Your task to perform on an android device: change notification settings in the gmail app Image 0: 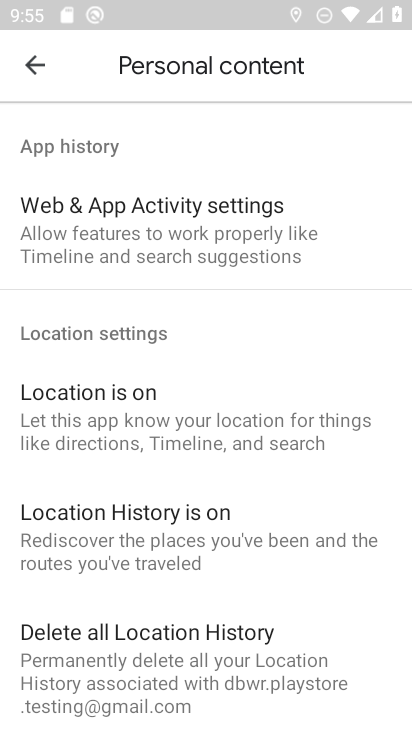
Step 0: drag from (272, 262) to (250, 572)
Your task to perform on an android device: change notification settings in the gmail app Image 1: 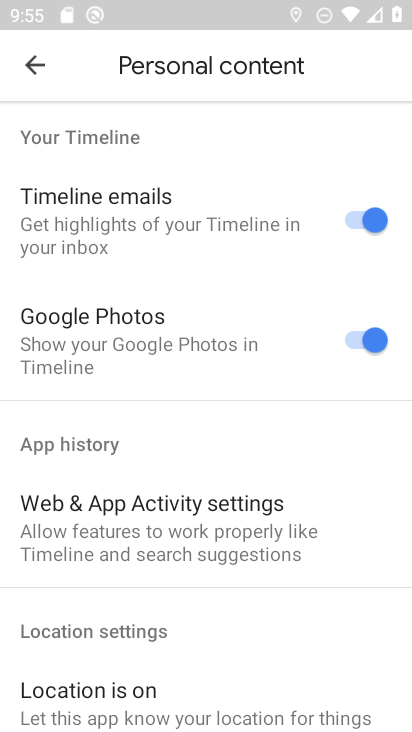
Step 1: press back button
Your task to perform on an android device: change notification settings in the gmail app Image 2: 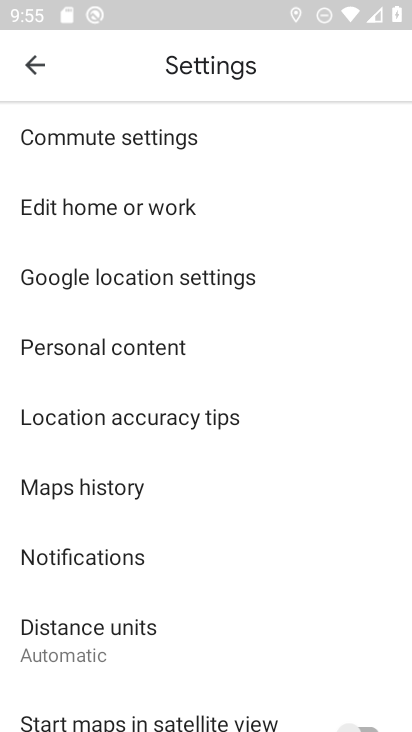
Step 2: press back button
Your task to perform on an android device: change notification settings in the gmail app Image 3: 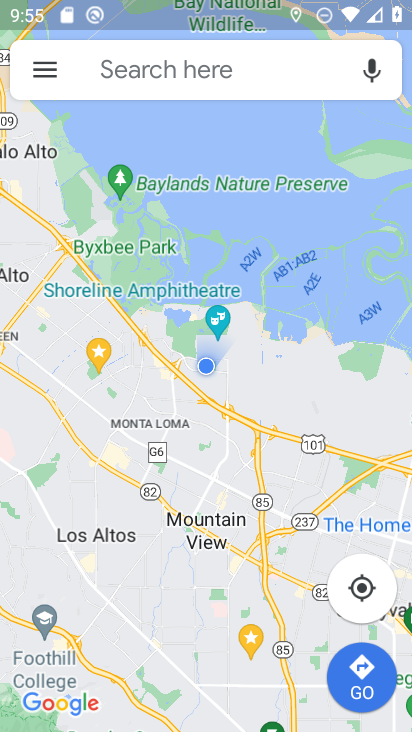
Step 3: press home button
Your task to perform on an android device: change notification settings in the gmail app Image 4: 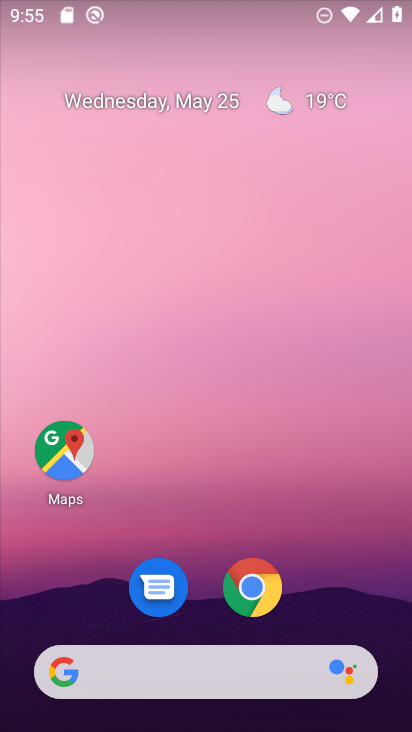
Step 4: drag from (375, 616) to (332, 67)
Your task to perform on an android device: change notification settings in the gmail app Image 5: 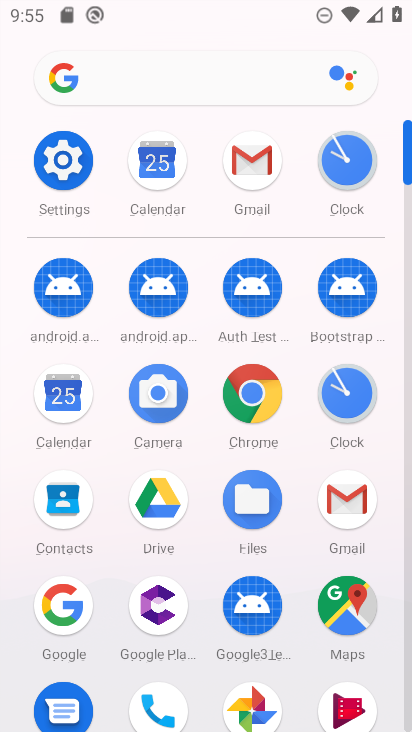
Step 5: click (409, 681)
Your task to perform on an android device: change notification settings in the gmail app Image 6: 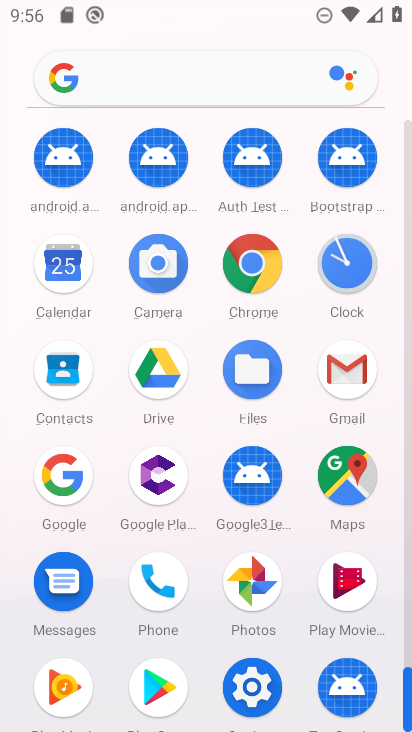
Step 6: click (345, 368)
Your task to perform on an android device: change notification settings in the gmail app Image 7: 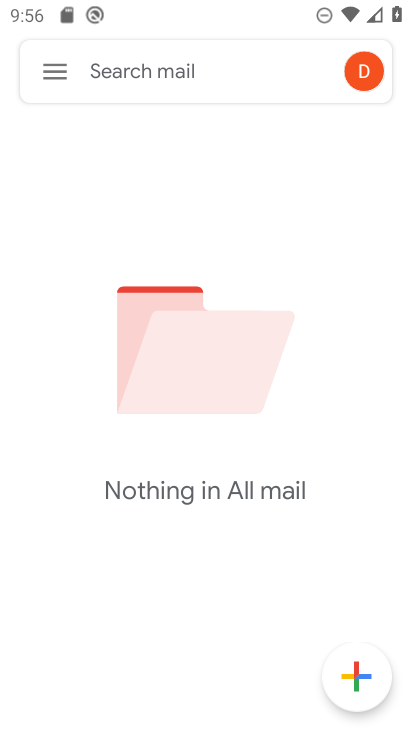
Step 7: click (48, 73)
Your task to perform on an android device: change notification settings in the gmail app Image 8: 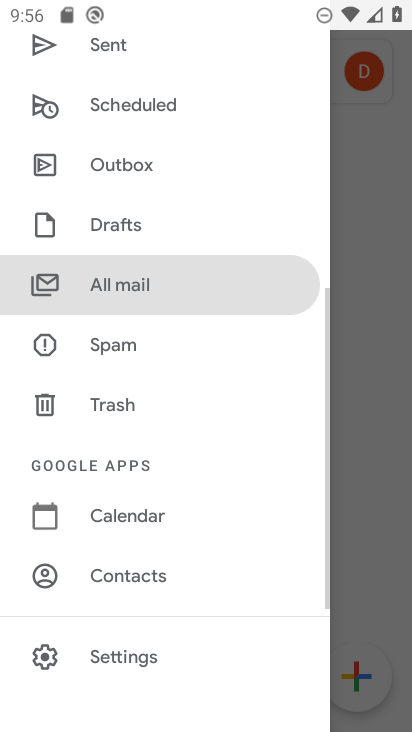
Step 8: drag from (256, 130) to (234, 5)
Your task to perform on an android device: change notification settings in the gmail app Image 9: 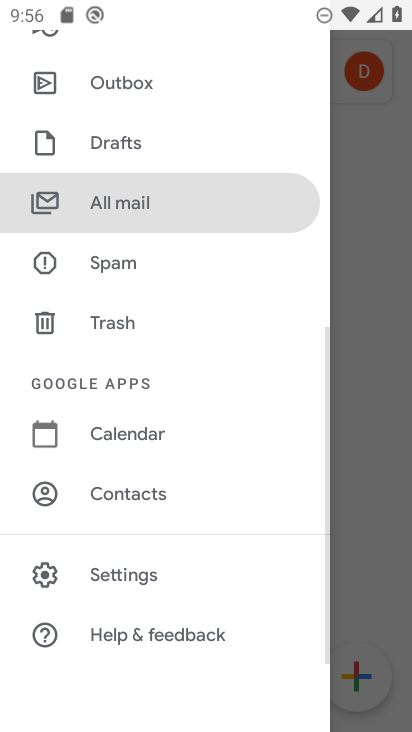
Step 9: click (123, 568)
Your task to perform on an android device: change notification settings in the gmail app Image 10: 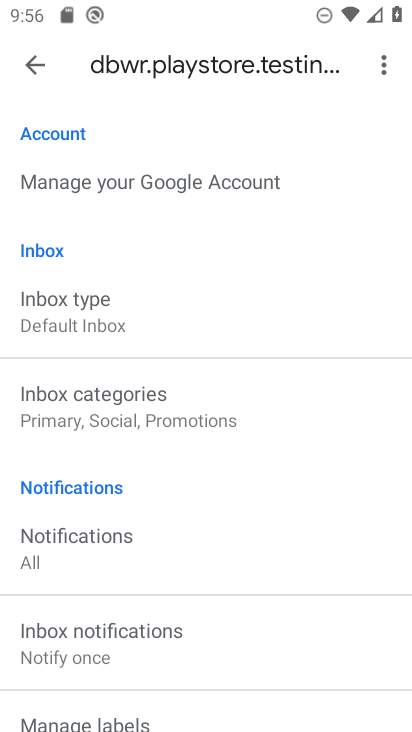
Step 10: drag from (267, 579) to (249, 250)
Your task to perform on an android device: change notification settings in the gmail app Image 11: 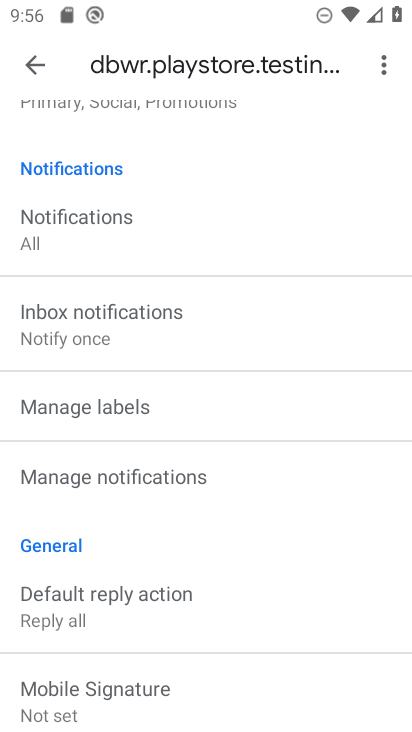
Step 11: click (107, 482)
Your task to perform on an android device: change notification settings in the gmail app Image 12: 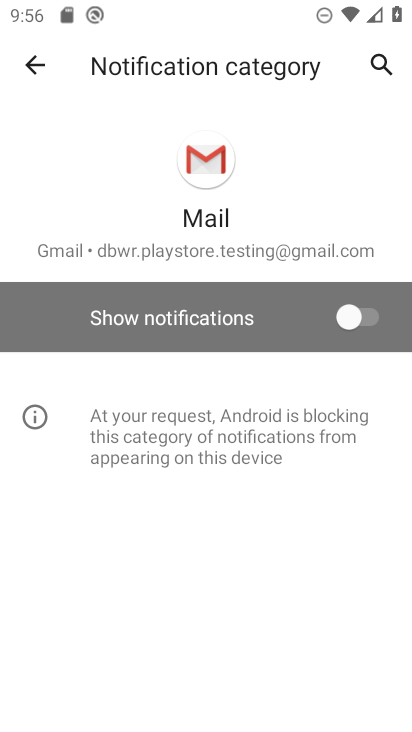
Step 12: click (366, 313)
Your task to perform on an android device: change notification settings in the gmail app Image 13: 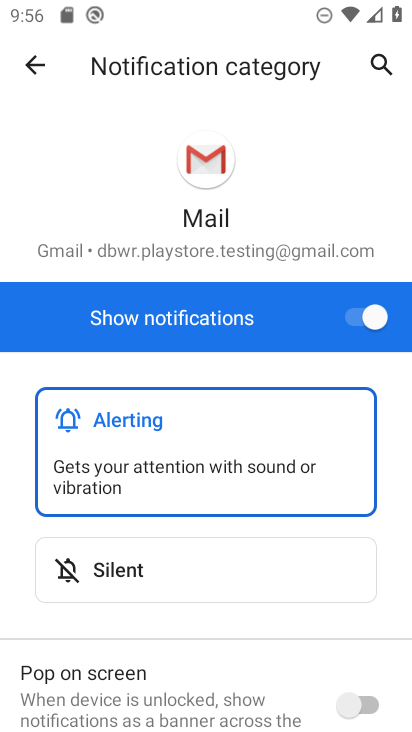
Step 13: task complete